Your task to perform on an android device: allow notifications from all sites in the chrome app Image 0: 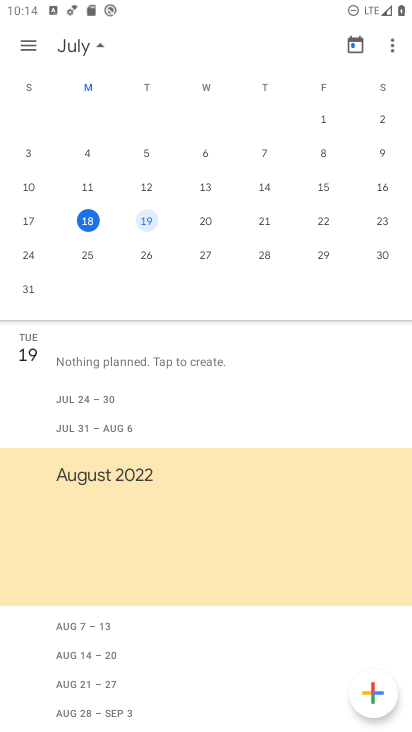
Step 0: press home button
Your task to perform on an android device: allow notifications from all sites in the chrome app Image 1: 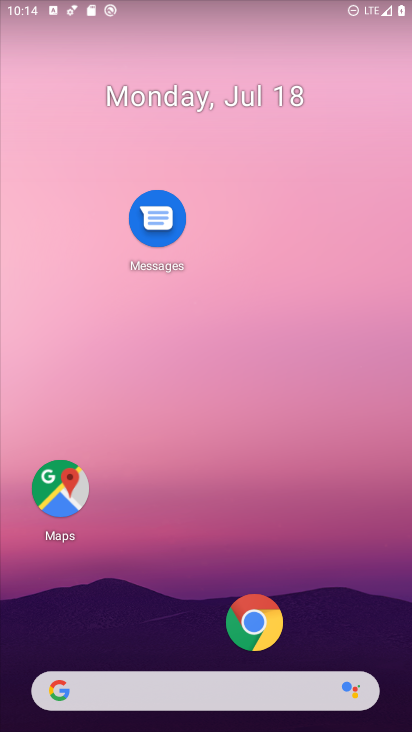
Step 1: drag from (277, 681) to (339, 127)
Your task to perform on an android device: allow notifications from all sites in the chrome app Image 2: 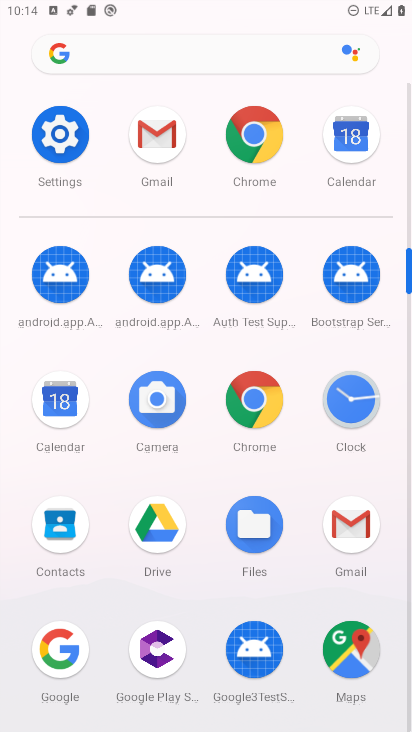
Step 2: click (255, 414)
Your task to perform on an android device: allow notifications from all sites in the chrome app Image 3: 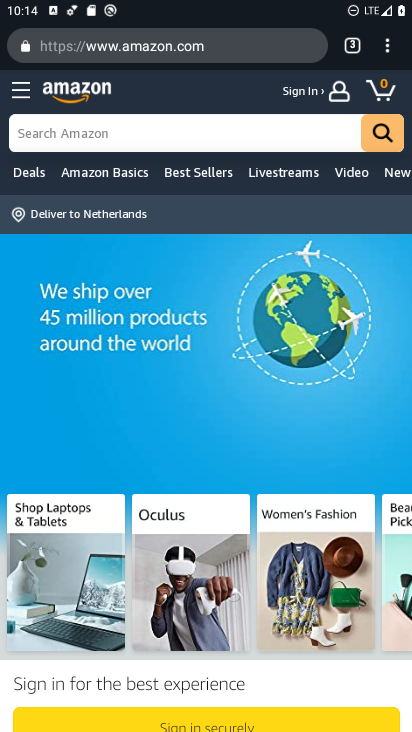
Step 3: click (389, 51)
Your task to perform on an android device: allow notifications from all sites in the chrome app Image 4: 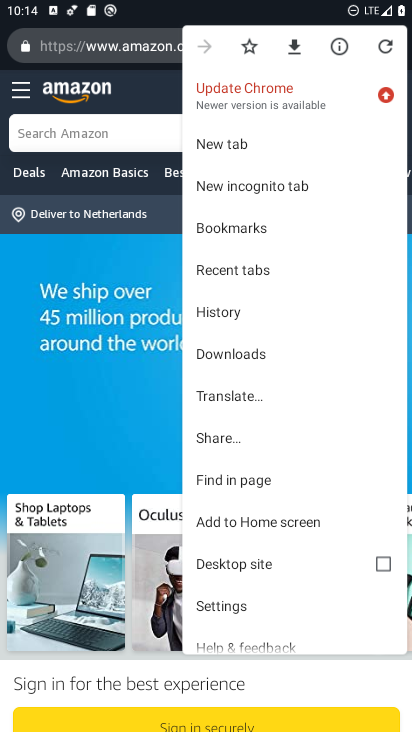
Step 4: click (216, 602)
Your task to perform on an android device: allow notifications from all sites in the chrome app Image 5: 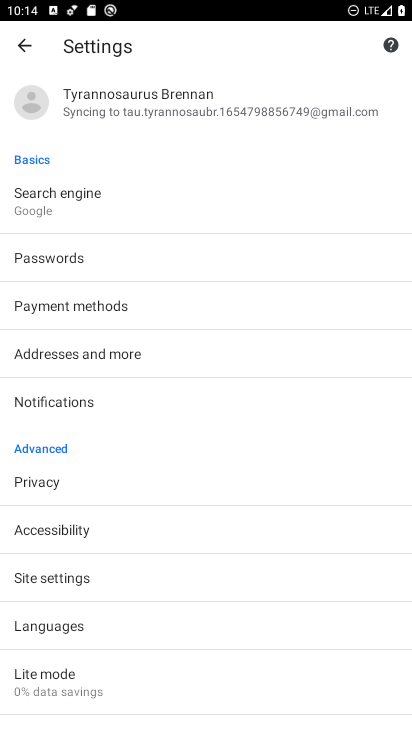
Step 5: click (87, 404)
Your task to perform on an android device: allow notifications from all sites in the chrome app Image 6: 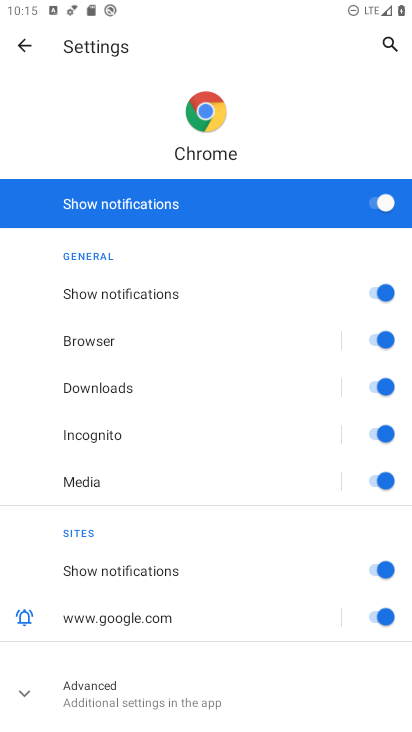
Step 6: drag from (141, 655) to (140, 392)
Your task to perform on an android device: allow notifications from all sites in the chrome app Image 7: 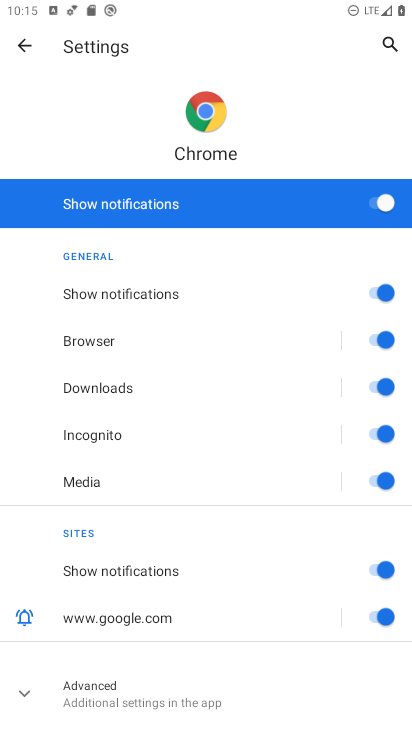
Step 7: click (138, 696)
Your task to perform on an android device: allow notifications from all sites in the chrome app Image 8: 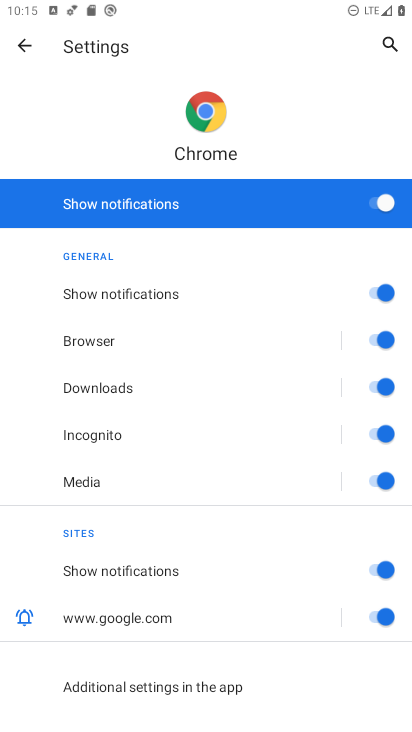
Step 8: task complete